Your task to perform on an android device: Open notification settings Image 0: 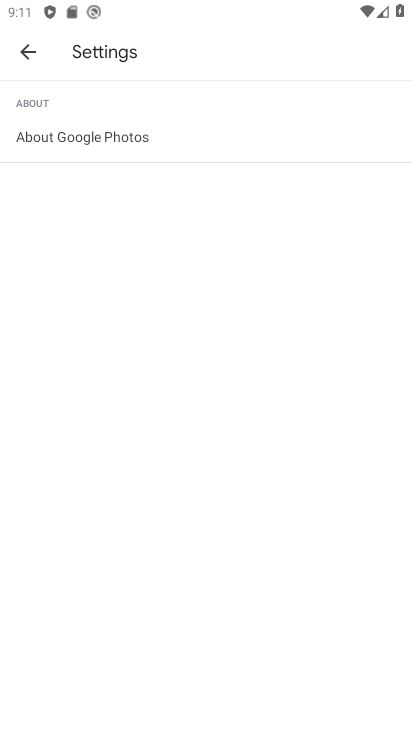
Step 0: press home button
Your task to perform on an android device: Open notification settings Image 1: 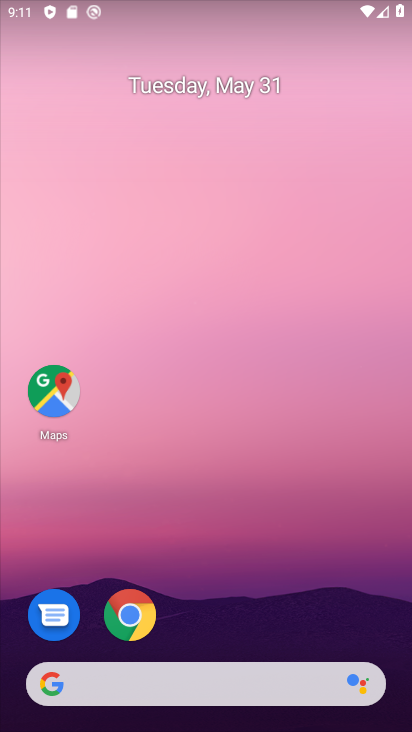
Step 1: drag from (249, 556) to (273, 47)
Your task to perform on an android device: Open notification settings Image 2: 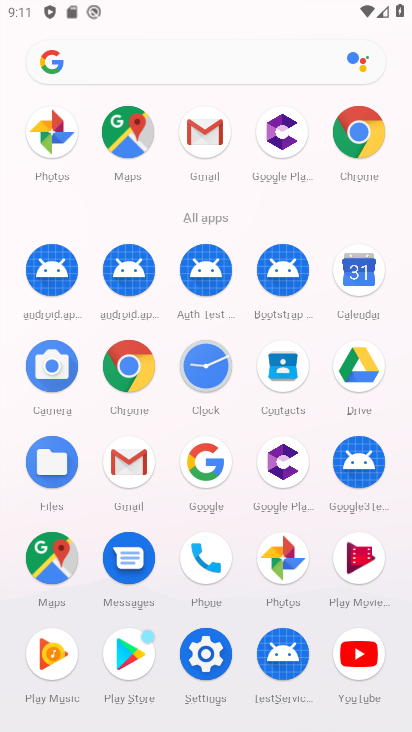
Step 2: click (201, 650)
Your task to perform on an android device: Open notification settings Image 3: 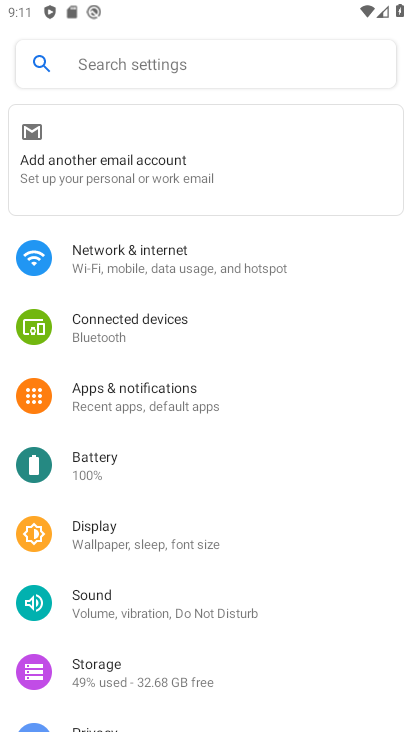
Step 3: click (173, 396)
Your task to perform on an android device: Open notification settings Image 4: 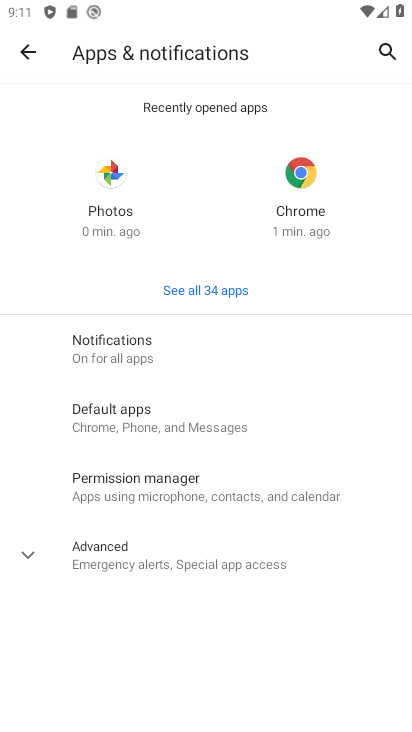
Step 4: click (118, 340)
Your task to perform on an android device: Open notification settings Image 5: 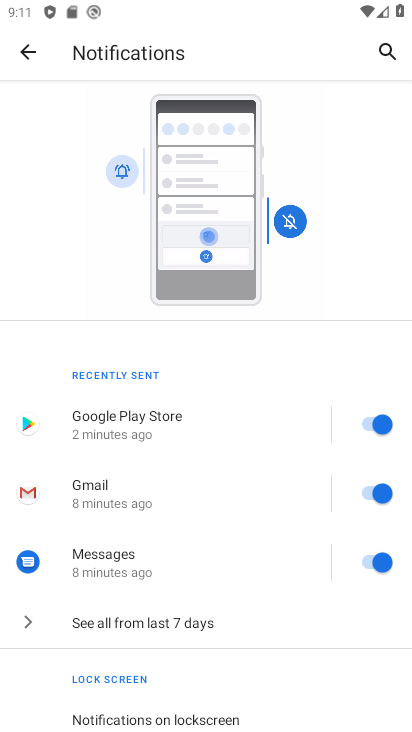
Step 5: task complete